Your task to perform on an android device: Check the weather Image 0: 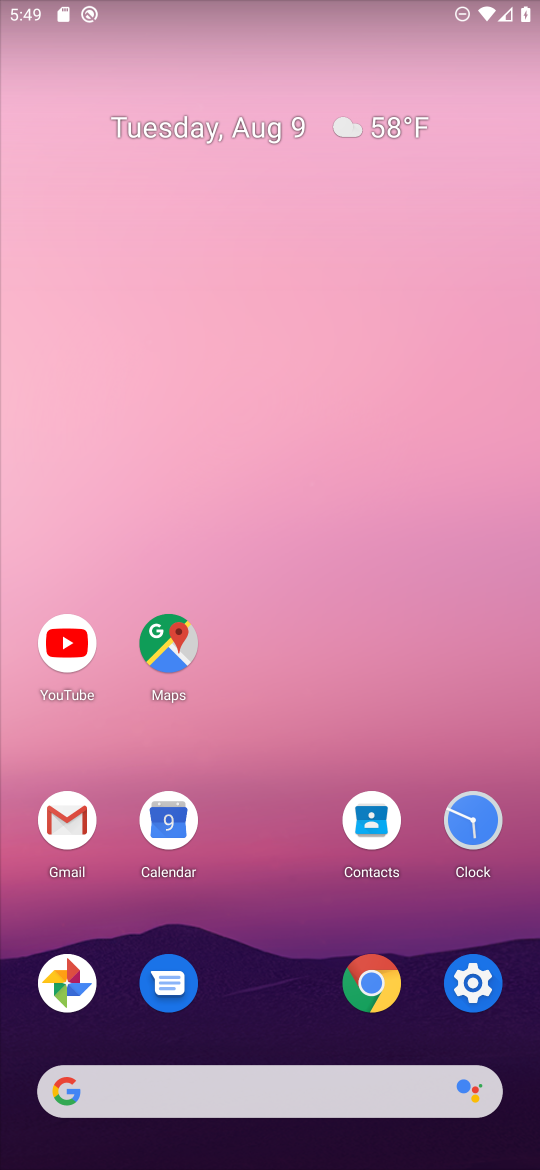
Step 0: press home button
Your task to perform on an android device: Check the weather Image 1: 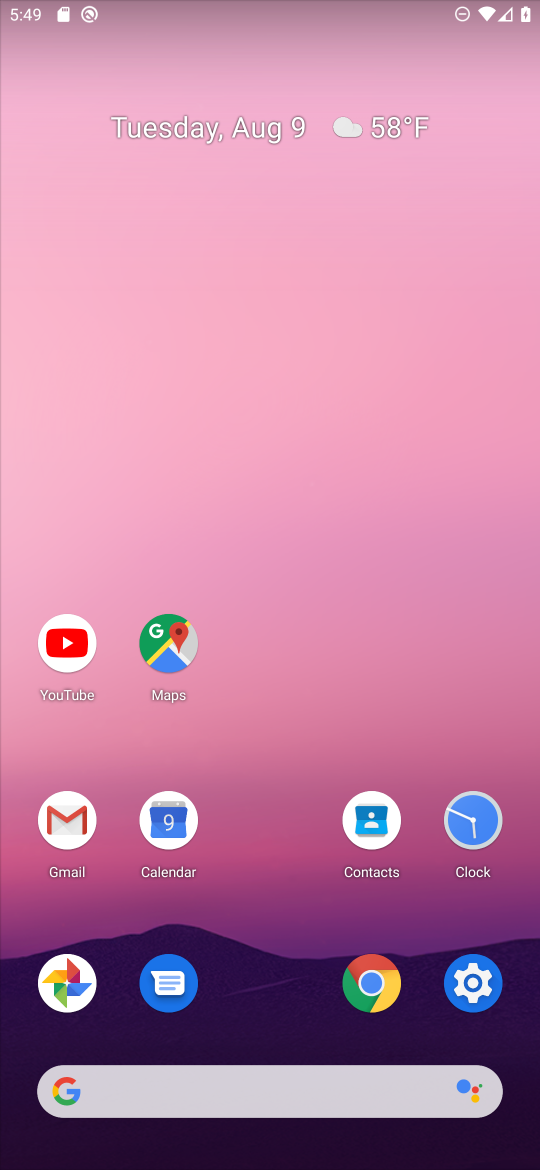
Step 1: click (291, 1074)
Your task to perform on an android device: Check the weather Image 2: 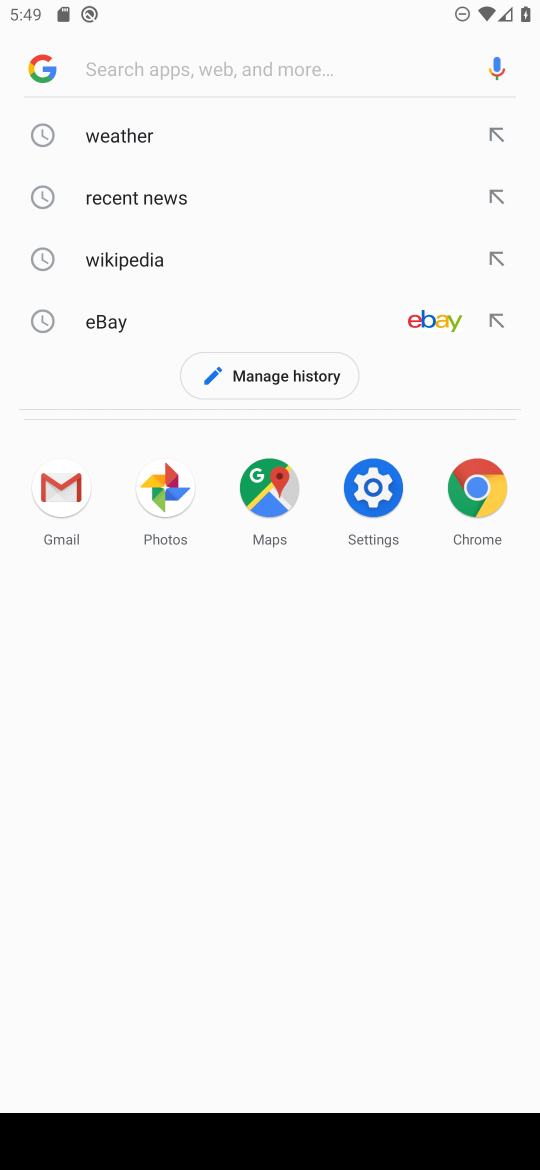
Step 2: click (116, 130)
Your task to perform on an android device: Check the weather Image 3: 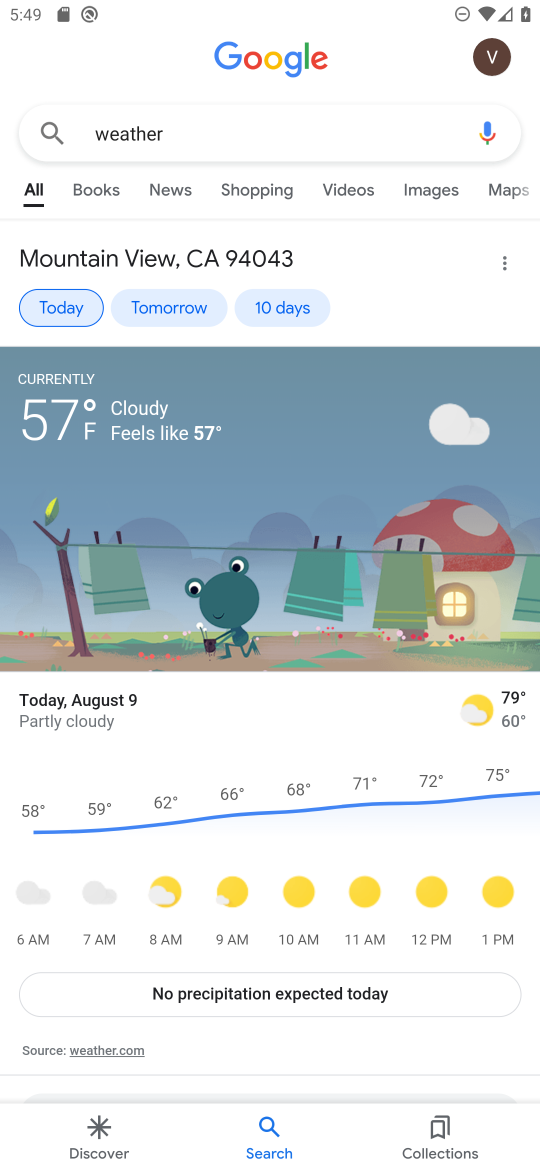
Step 3: task complete